Your task to perform on an android device: change the clock display to show seconds Image 0: 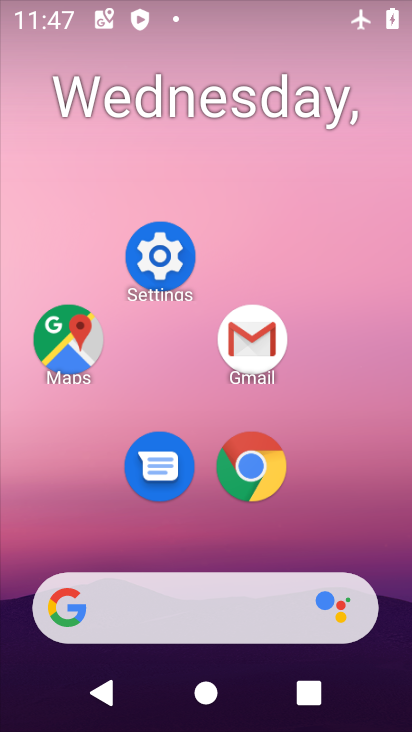
Step 0: click (261, 452)
Your task to perform on an android device: change the clock display to show seconds Image 1: 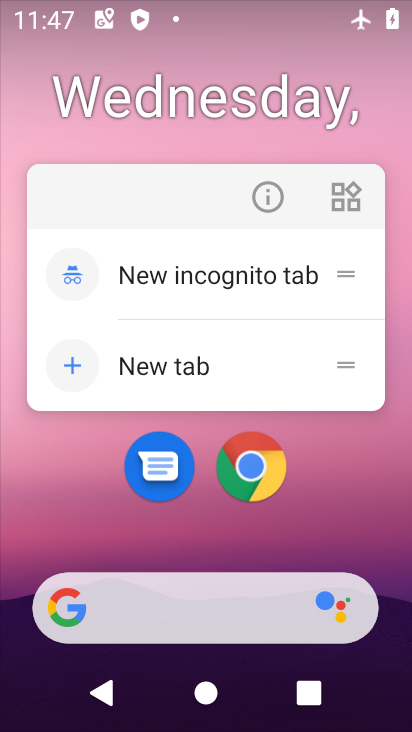
Step 1: click (337, 514)
Your task to perform on an android device: change the clock display to show seconds Image 2: 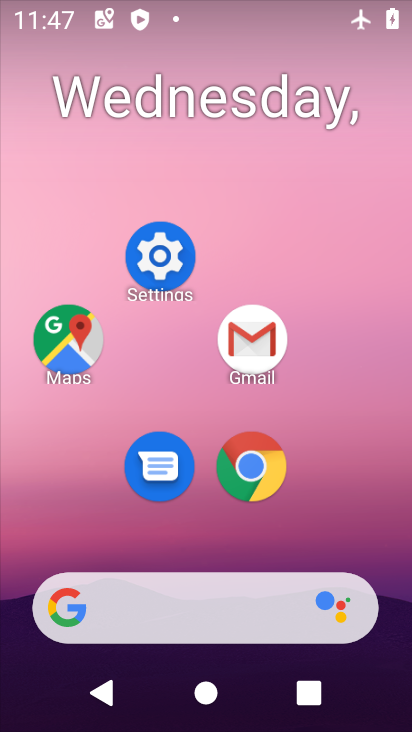
Step 2: drag from (204, 541) to (266, 156)
Your task to perform on an android device: change the clock display to show seconds Image 3: 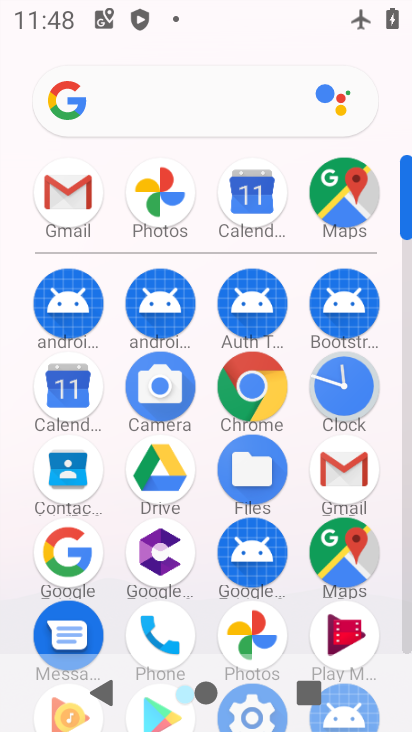
Step 3: click (334, 377)
Your task to perform on an android device: change the clock display to show seconds Image 4: 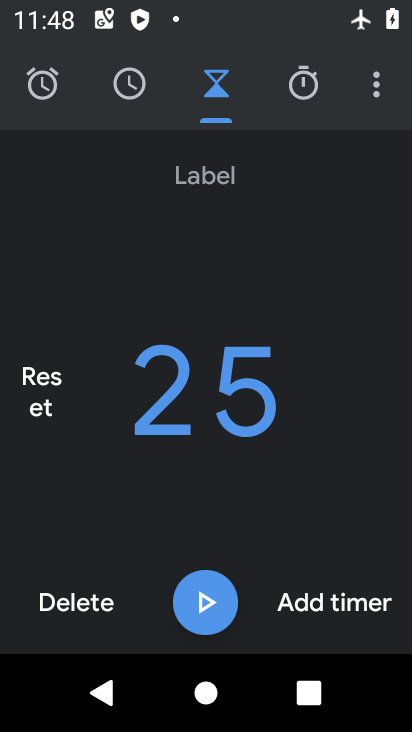
Step 4: click (379, 74)
Your task to perform on an android device: change the clock display to show seconds Image 5: 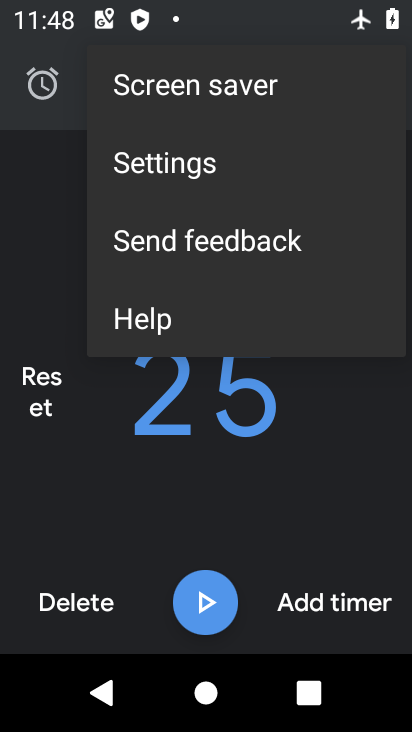
Step 5: click (233, 181)
Your task to perform on an android device: change the clock display to show seconds Image 6: 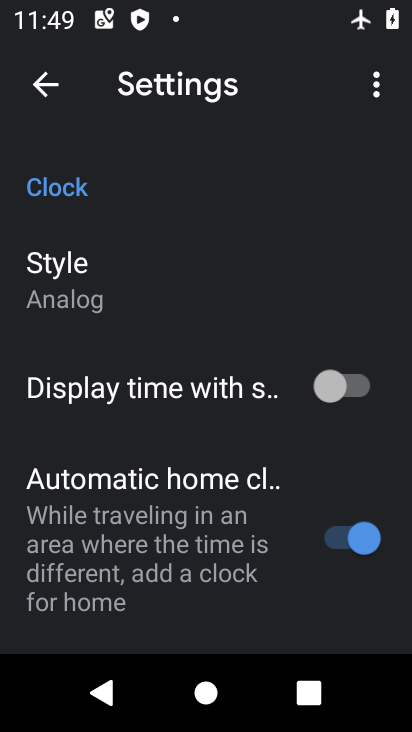
Step 6: drag from (193, 506) to (252, 314)
Your task to perform on an android device: change the clock display to show seconds Image 7: 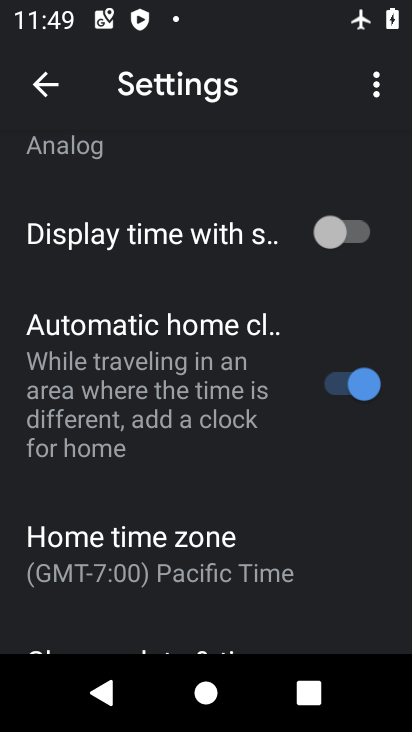
Step 7: click (312, 247)
Your task to perform on an android device: change the clock display to show seconds Image 8: 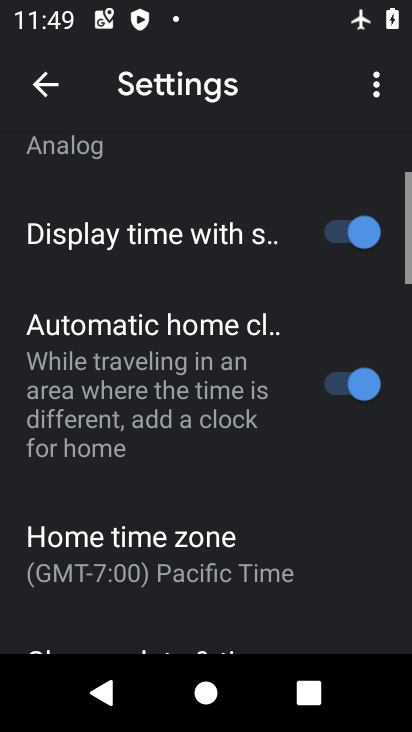
Step 8: task complete